Your task to perform on an android device: Open the calendar and show me this week's events? Image 0: 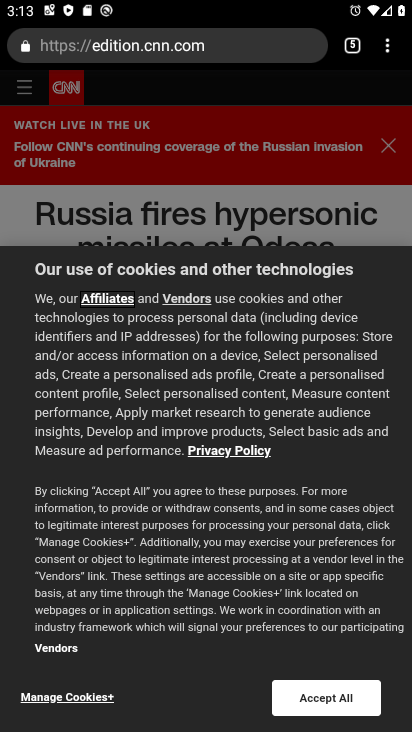
Step 0: press home button
Your task to perform on an android device: Open the calendar and show me this week's events? Image 1: 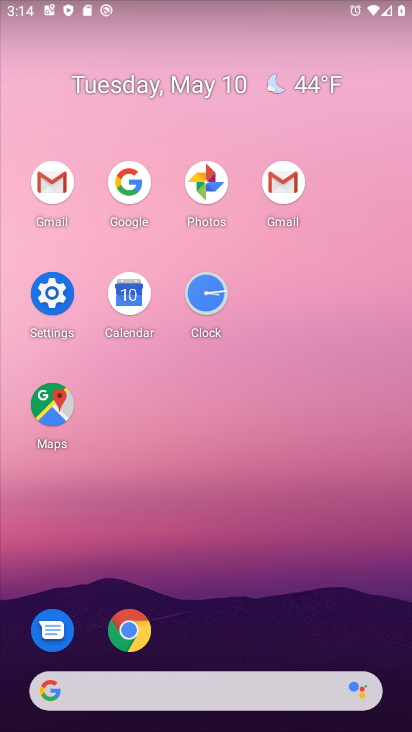
Step 1: click (135, 291)
Your task to perform on an android device: Open the calendar and show me this week's events? Image 2: 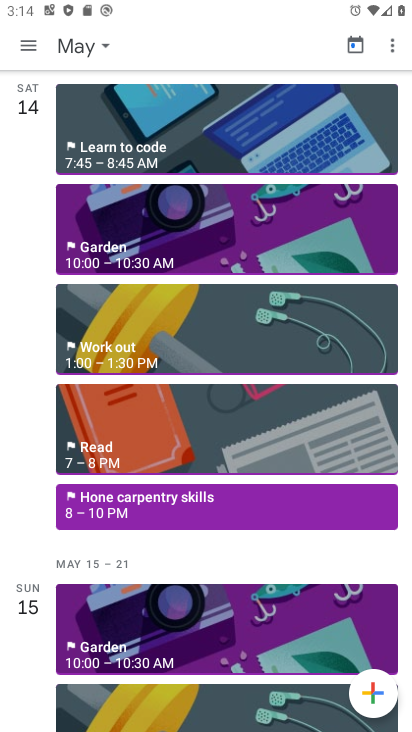
Step 2: click (36, 56)
Your task to perform on an android device: Open the calendar and show me this week's events? Image 3: 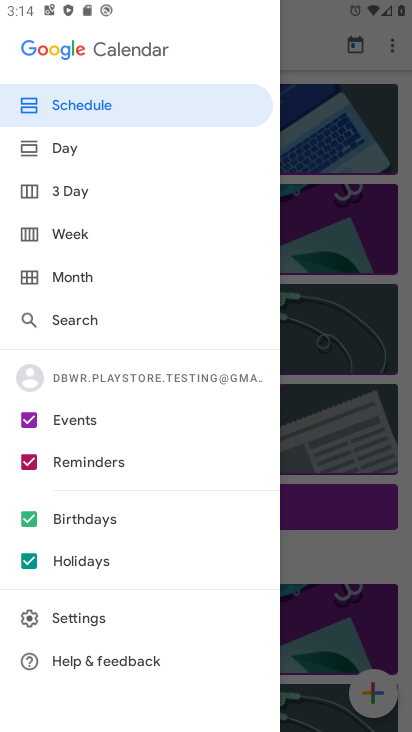
Step 3: click (102, 242)
Your task to perform on an android device: Open the calendar and show me this week's events? Image 4: 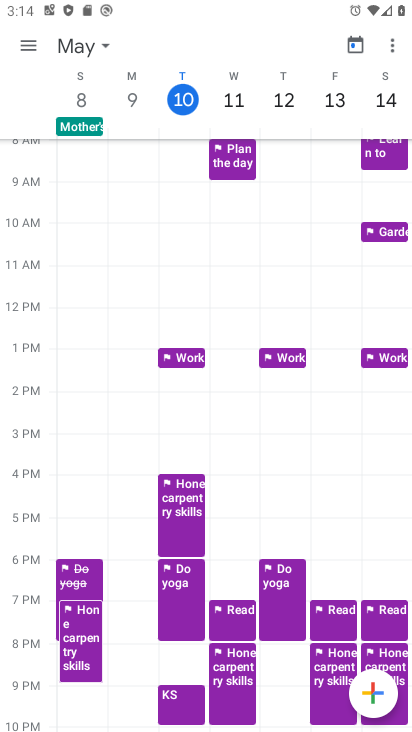
Step 4: task complete